Your task to perform on an android device: star an email in the gmail app Image 0: 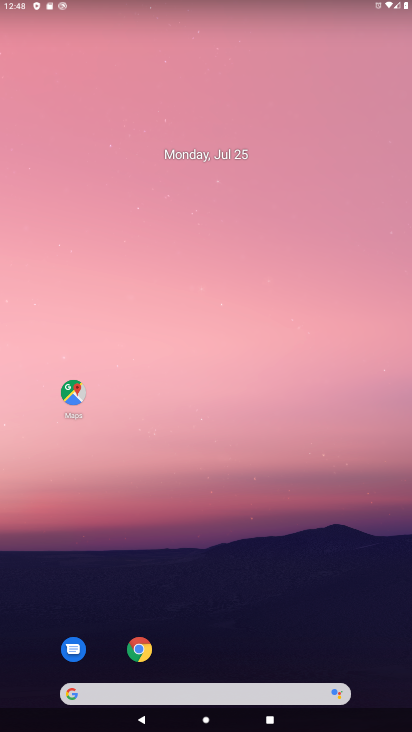
Step 0: press home button
Your task to perform on an android device: star an email in the gmail app Image 1: 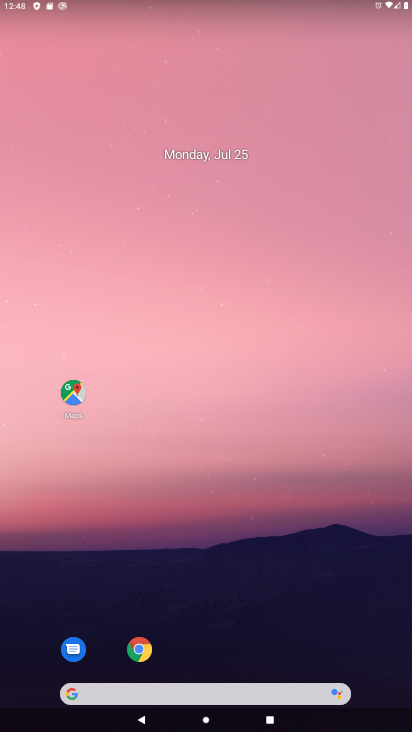
Step 1: drag from (270, 636) to (208, 126)
Your task to perform on an android device: star an email in the gmail app Image 2: 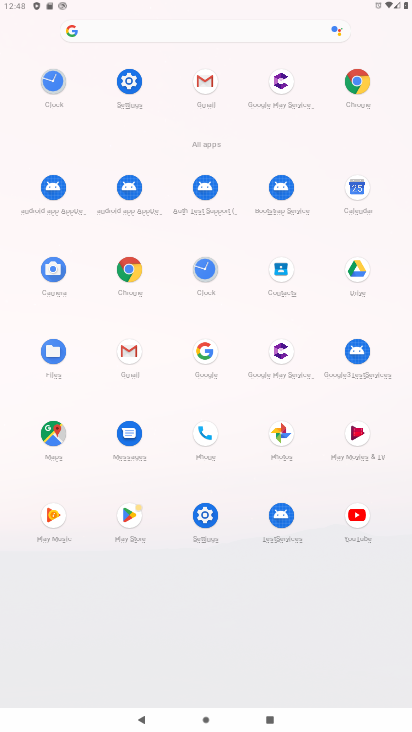
Step 2: click (203, 82)
Your task to perform on an android device: star an email in the gmail app Image 3: 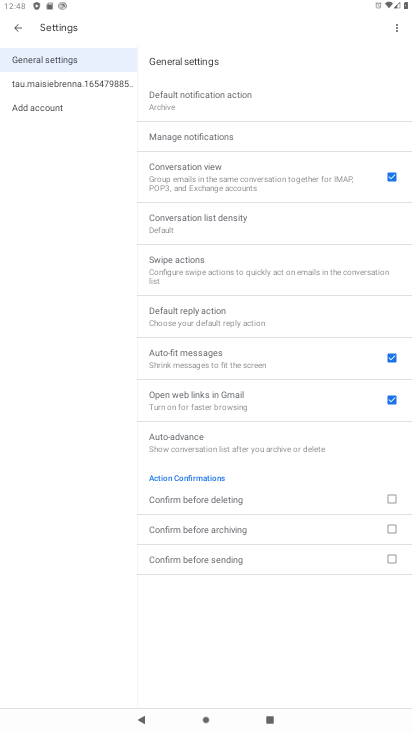
Step 3: click (37, 78)
Your task to perform on an android device: star an email in the gmail app Image 4: 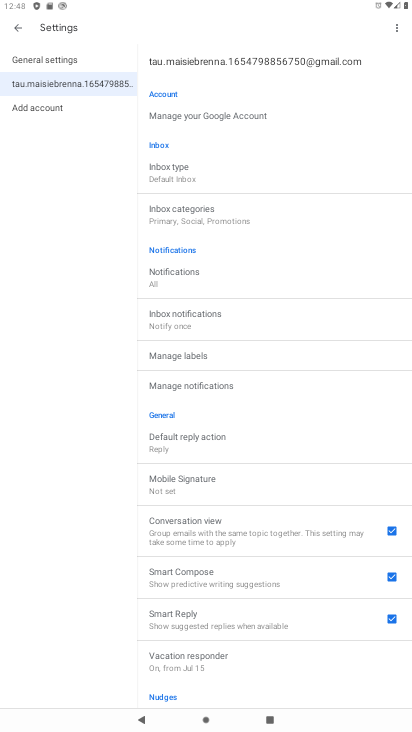
Step 4: click (13, 26)
Your task to perform on an android device: star an email in the gmail app Image 5: 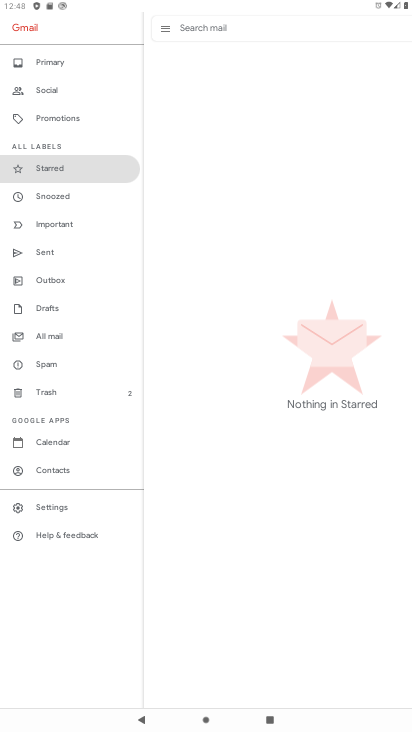
Step 5: drag from (72, 77) to (96, 404)
Your task to perform on an android device: star an email in the gmail app Image 6: 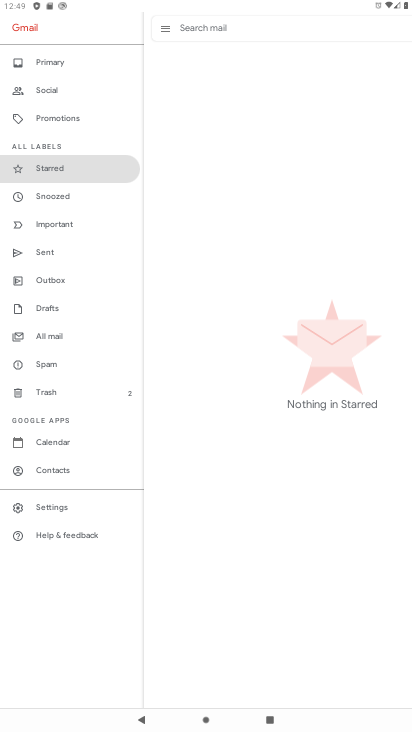
Step 6: click (40, 335)
Your task to perform on an android device: star an email in the gmail app Image 7: 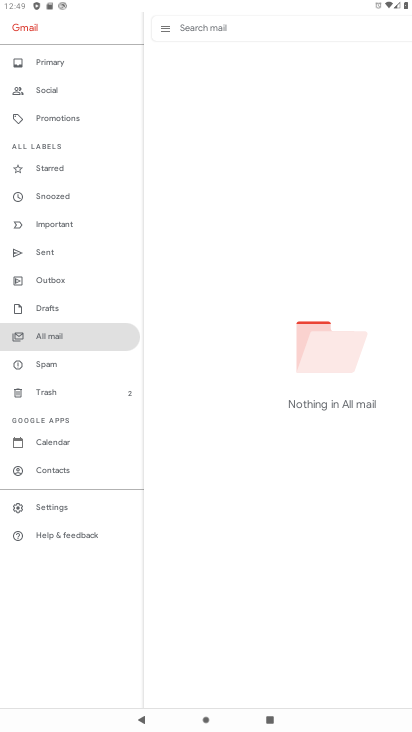
Step 7: task complete